Your task to perform on an android device: Open Yahoo.com Image 0: 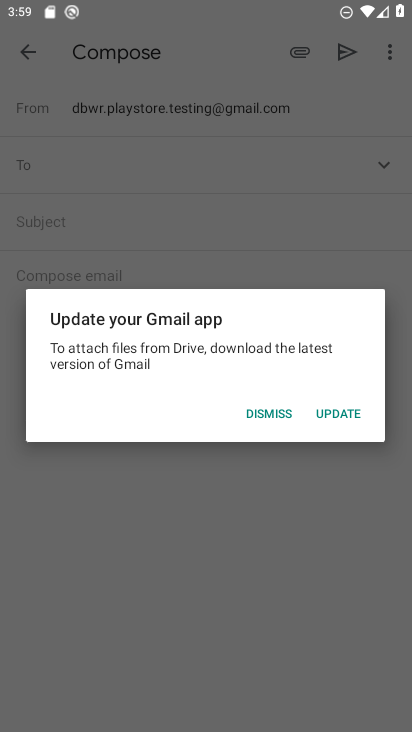
Step 0: press home button
Your task to perform on an android device: Open Yahoo.com Image 1: 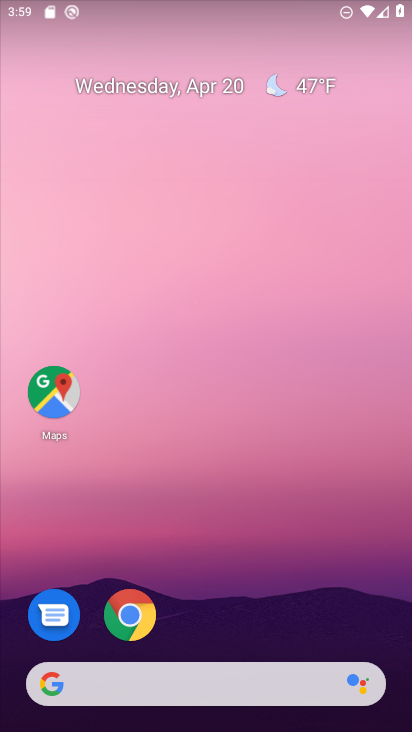
Step 1: click (130, 616)
Your task to perform on an android device: Open Yahoo.com Image 2: 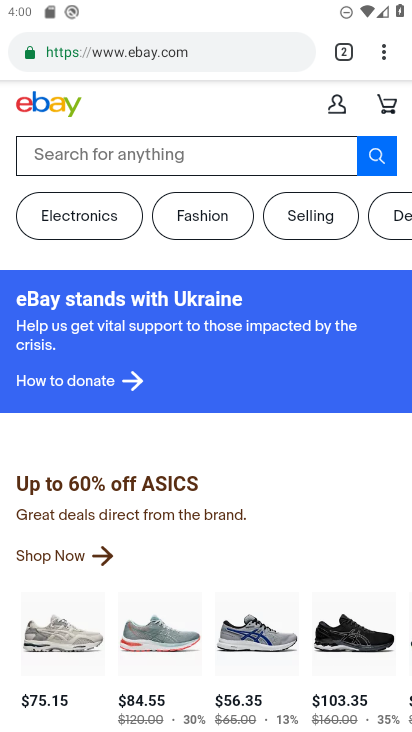
Step 2: click (385, 46)
Your task to perform on an android device: Open Yahoo.com Image 3: 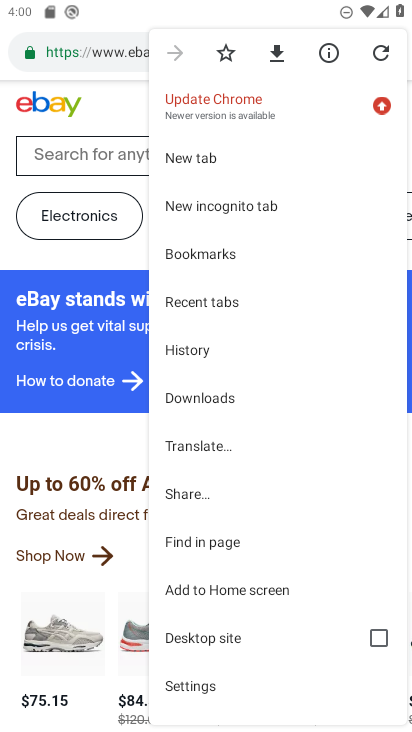
Step 3: click (207, 160)
Your task to perform on an android device: Open Yahoo.com Image 4: 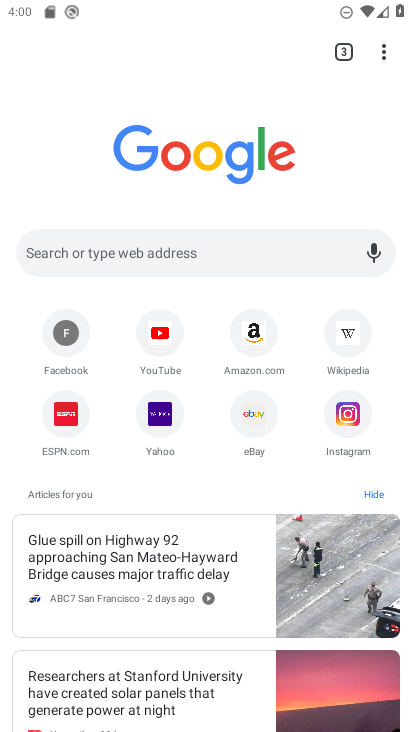
Step 4: click (165, 415)
Your task to perform on an android device: Open Yahoo.com Image 5: 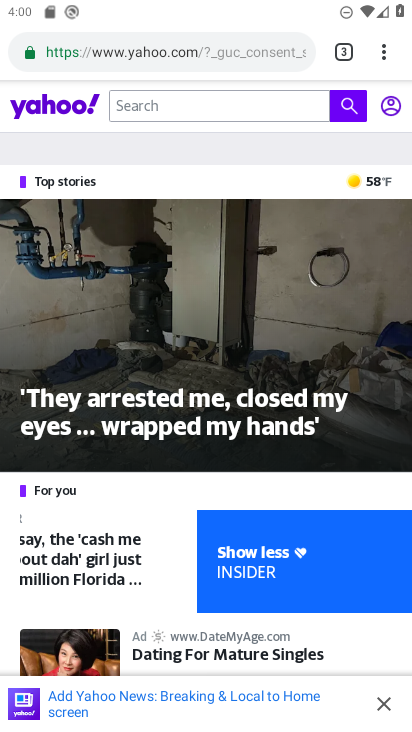
Step 5: task complete